Your task to perform on an android device: check the backup settings in the google photos Image 0: 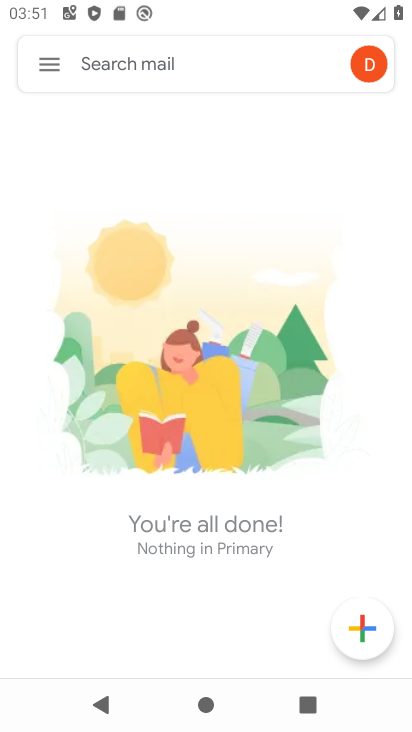
Step 0: press home button
Your task to perform on an android device: check the backup settings in the google photos Image 1: 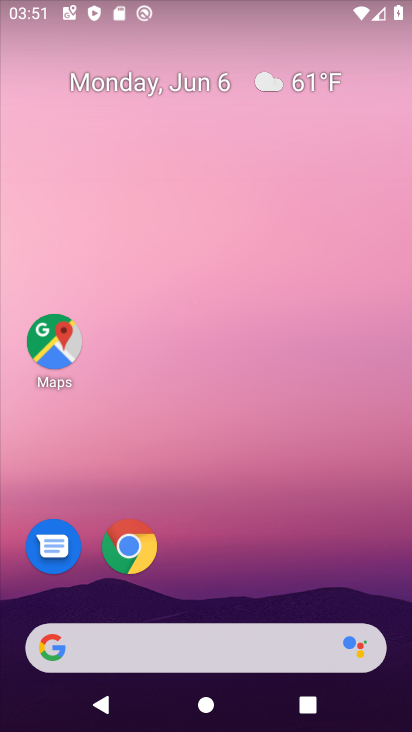
Step 1: drag from (186, 561) to (199, 71)
Your task to perform on an android device: check the backup settings in the google photos Image 2: 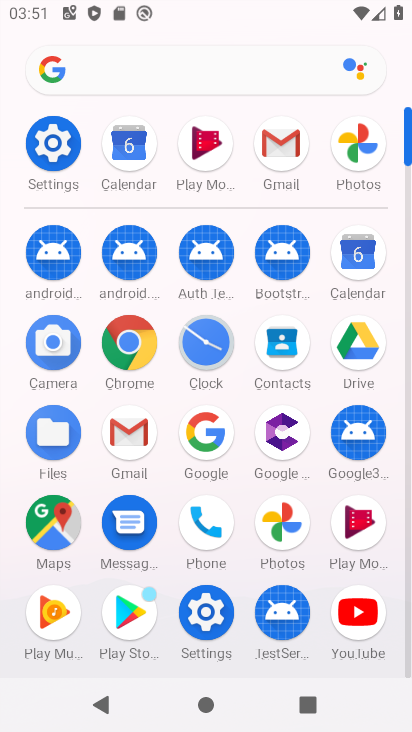
Step 2: click (360, 160)
Your task to perform on an android device: check the backup settings in the google photos Image 3: 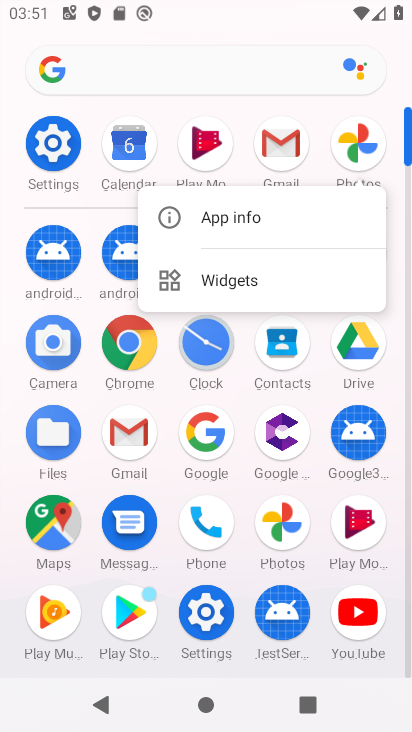
Step 3: click (360, 160)
Your task to perform on an android device: check the backup settings in the google photos Image 4: 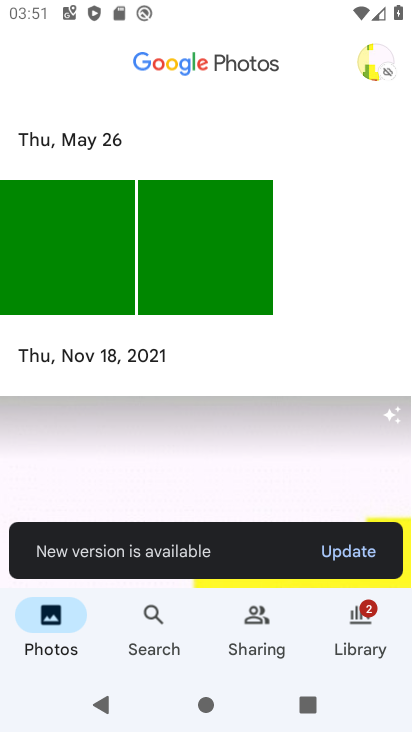
Step 4: click (389, 60)
Your task to perform on an android device: check the backup settings in the google photos Image 5: 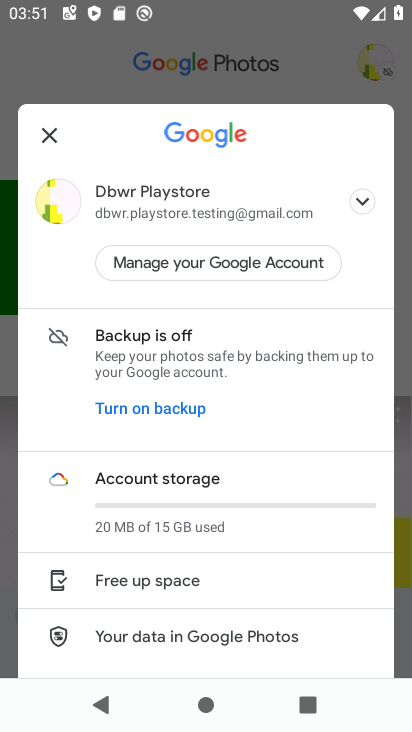
Step 5: click (144, 352)
Your task to perform on an android device: check the backup settings in the google photos Image 6: 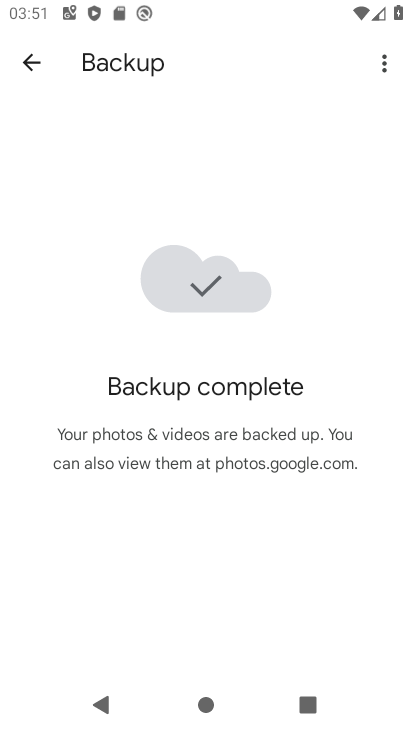
Step 6: click (400, 55)
Your task to perform on an android device: check the backup settings in the google photos Image 7: 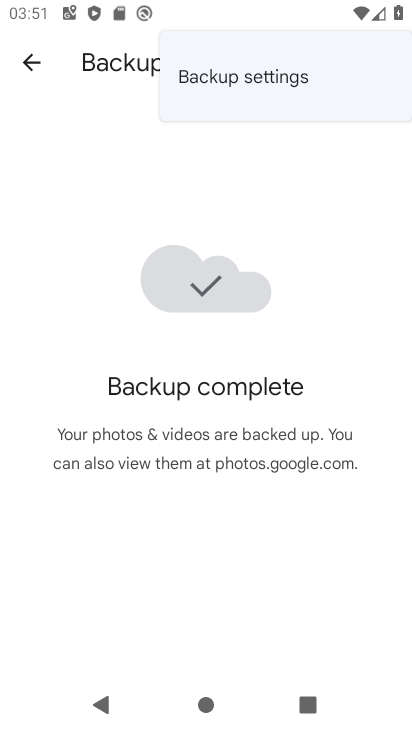
Step 7: click (227, 71)
Your task to perform on an android device: check the backup settings in the google photos Image 8: 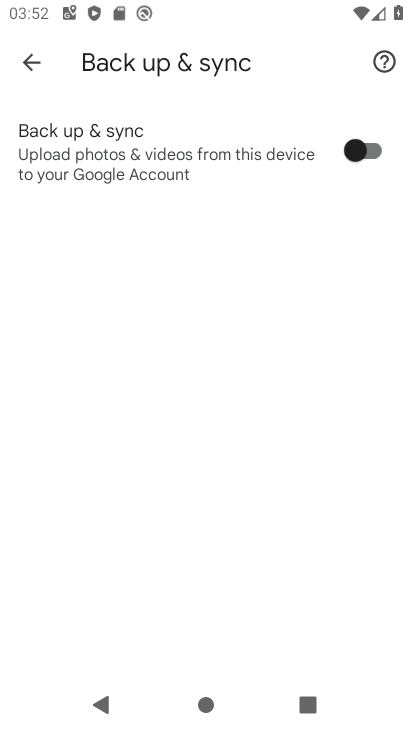
Step 8: task complete